Your task to perform on an android device: Search for vegetarian restaurants on Maps Image 0: 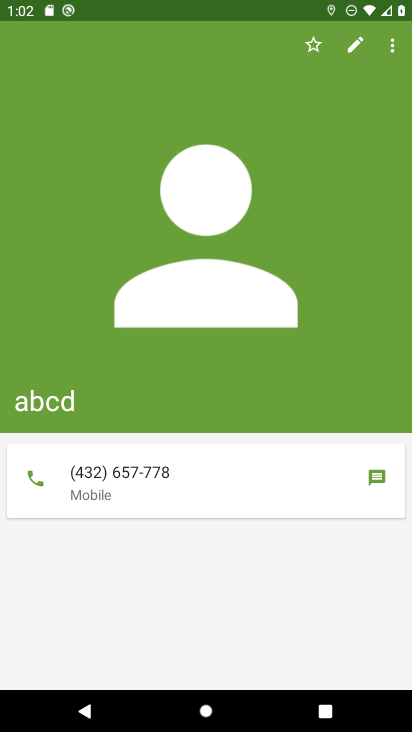
Step 0: press home button
Your task to perform on an android device: Search for vegetarian restaurants on Maps Image 1: 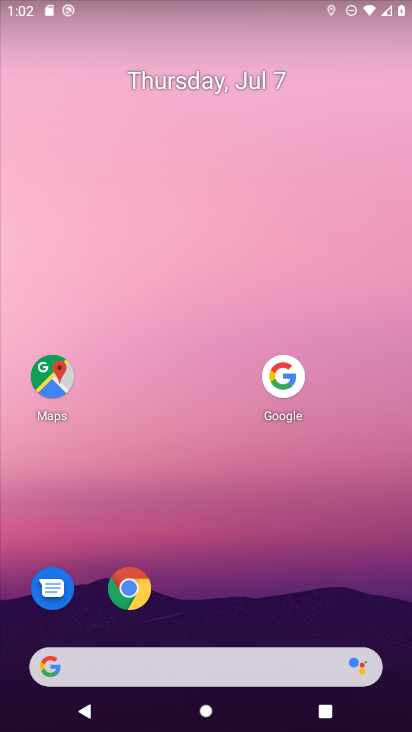
Step 1: click (54, 380)
Your task to perform on an android device: Search for vegetarian restaurants on Maps Image 2: 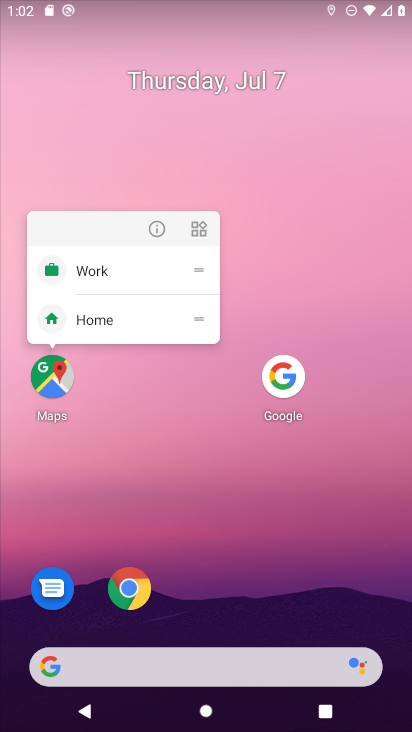
Step 2: click (54, 382)
Your task to perform on an android device: Search for vegetarian restaurants on Maps Image 3: 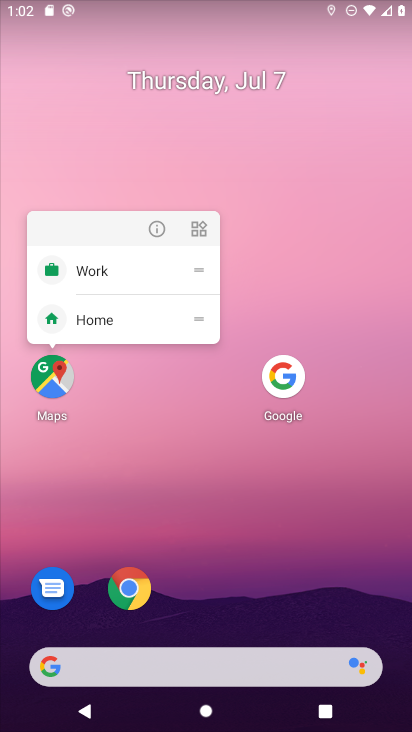
Step 3: click (51, 384)
Your task to perform on an android device: Search for vegetarian restaurants on Maps Image 4: 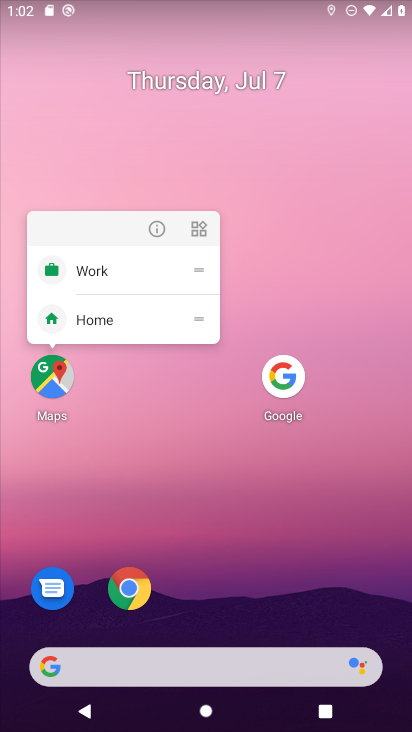
Step 4: click (54, 376)
Your task to perform on an android device: Search for vegetarian restaurants on Maps Image 5: 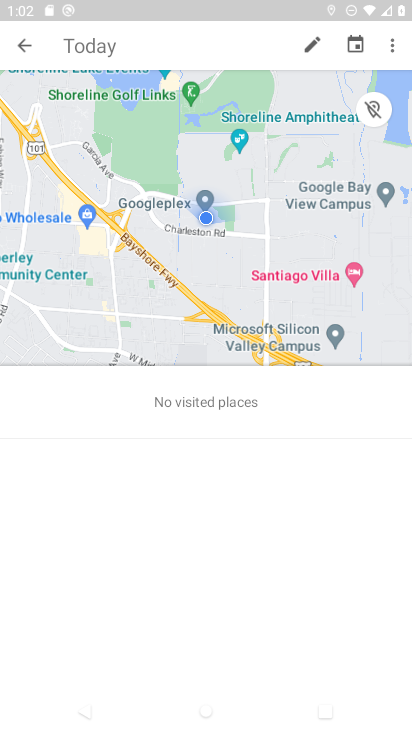
Step 5: click (26, 46)
Your task to perform on an android device: Search for vegetarian restaurants on Maps Image 6: 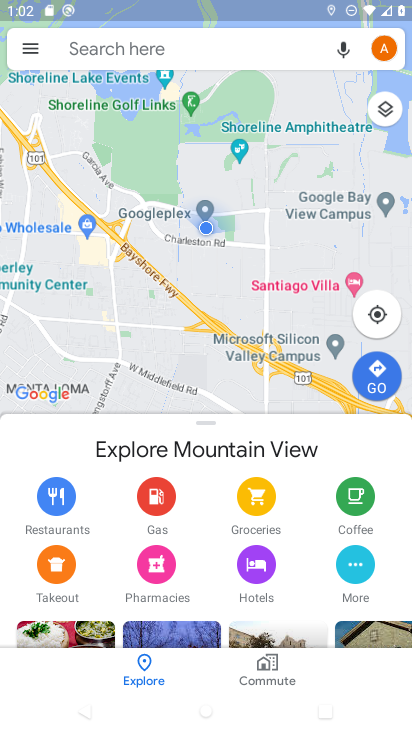
Step 6: click (201, 46)
Your task to perform on an android device: Search for vegetarian restaurants on Maps Image 7: 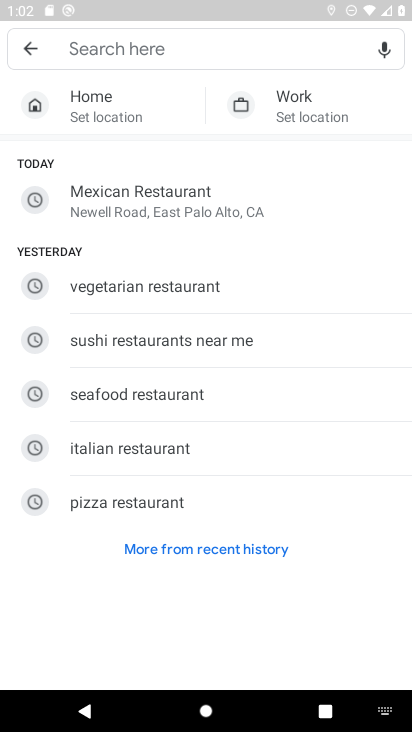
Step 7: click (131, 290)
Your task to perform on an android device: Search for vegetarian restaurants on Maps Image 8: 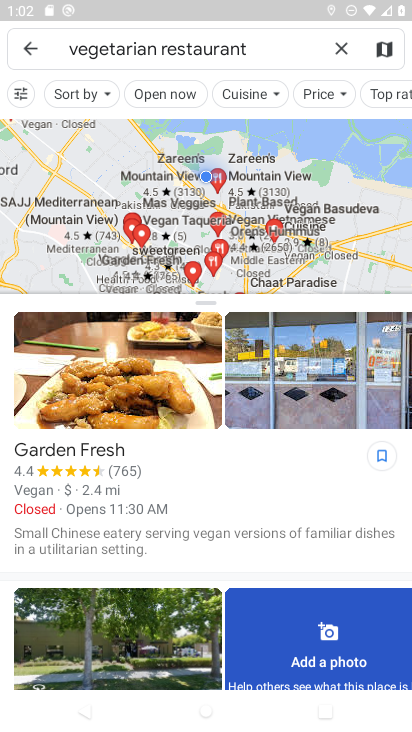
Step 8: task complete